Your task to perform on an android device: Go to Amazon Image 0: 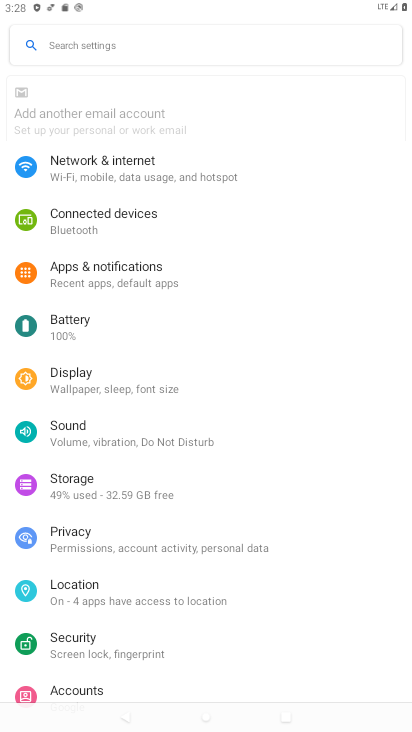
Step 0: press home button
Your task to perform on an android device: Go to Amazon Image 1: 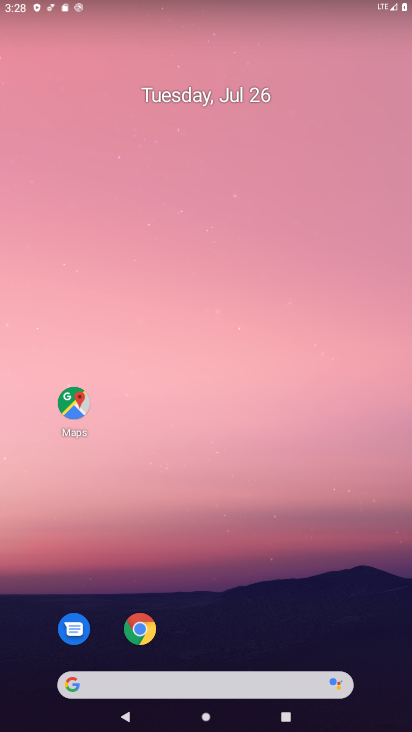
Step 1: click (143, 631)
Your task to perform on an android device: Go to Amazon Image 2: 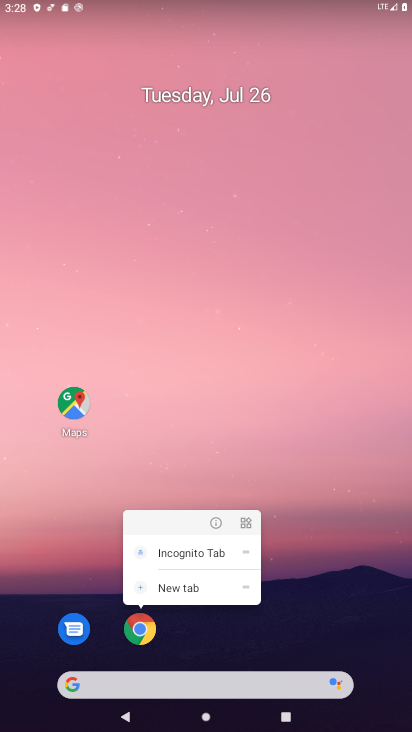
Step 2: click (139, 625)
Your task to perform on an android device: Go to Amazon Image 3: 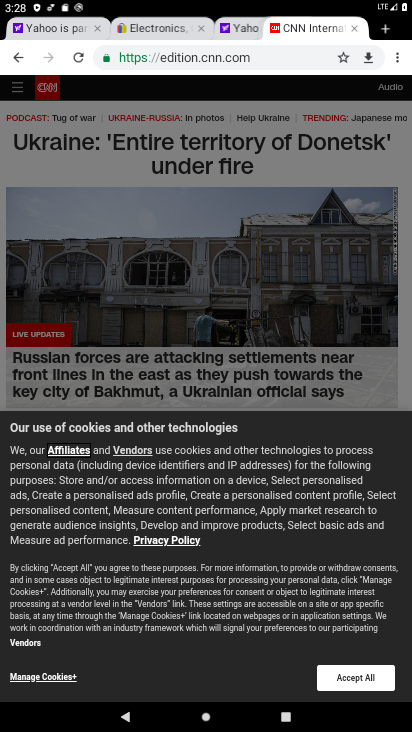
Step 3: click (398, 60)
Your task to perform on an android device: Go to Amazon Image 4: 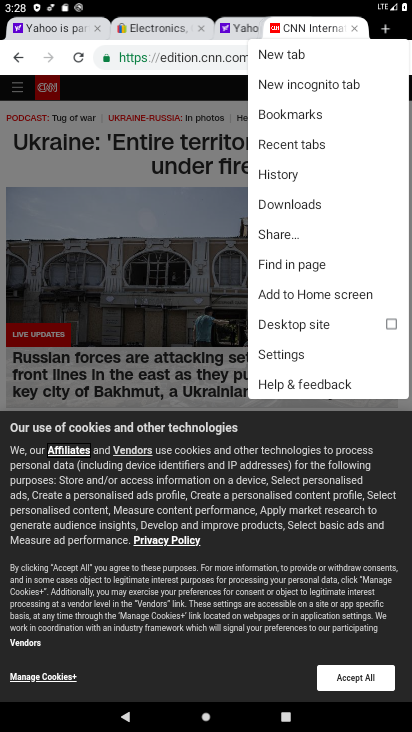
Step 4: click (278, 54)
Your task to perform on an android device: Go to Amazon Image 5: 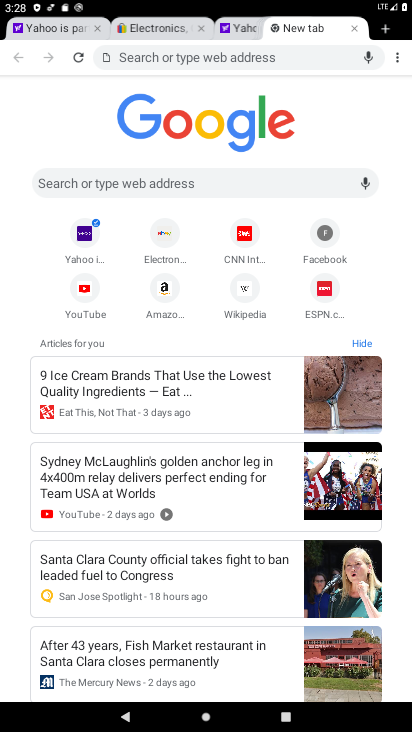
Step 5: click (154, 287)
Your task to perform on an android device: Go to Amazon Image 6: 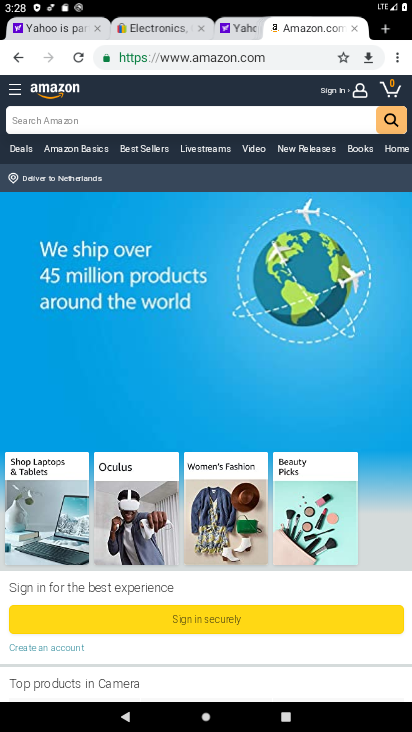
Step 6: task complete